Your task to perform on an android device: Open Google Chrome and click the shortcut for Amazon.com Image 0: 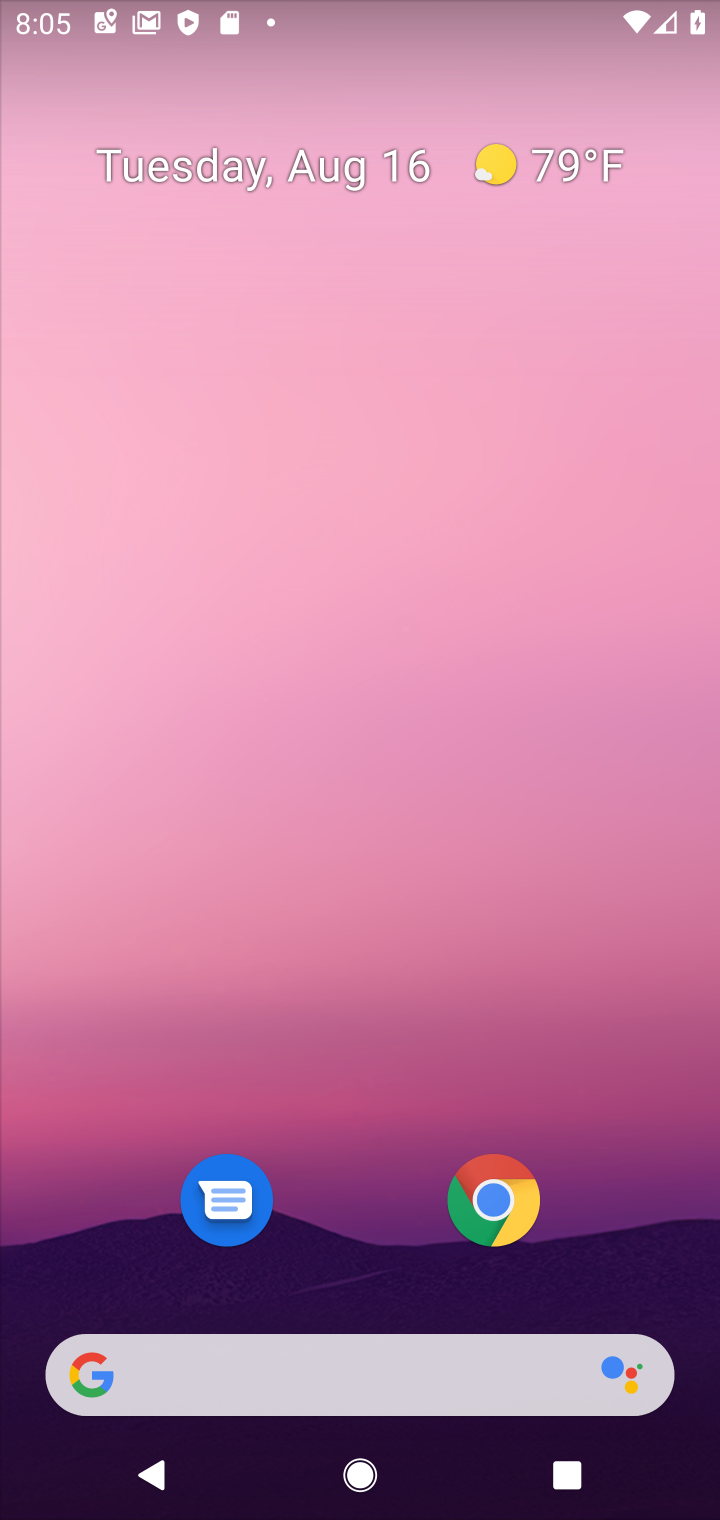
Step 0: click (494, 1199)
Your task to perform on an android device: Open Google Chrome and click the shortcut for Amazon.com Image 1: 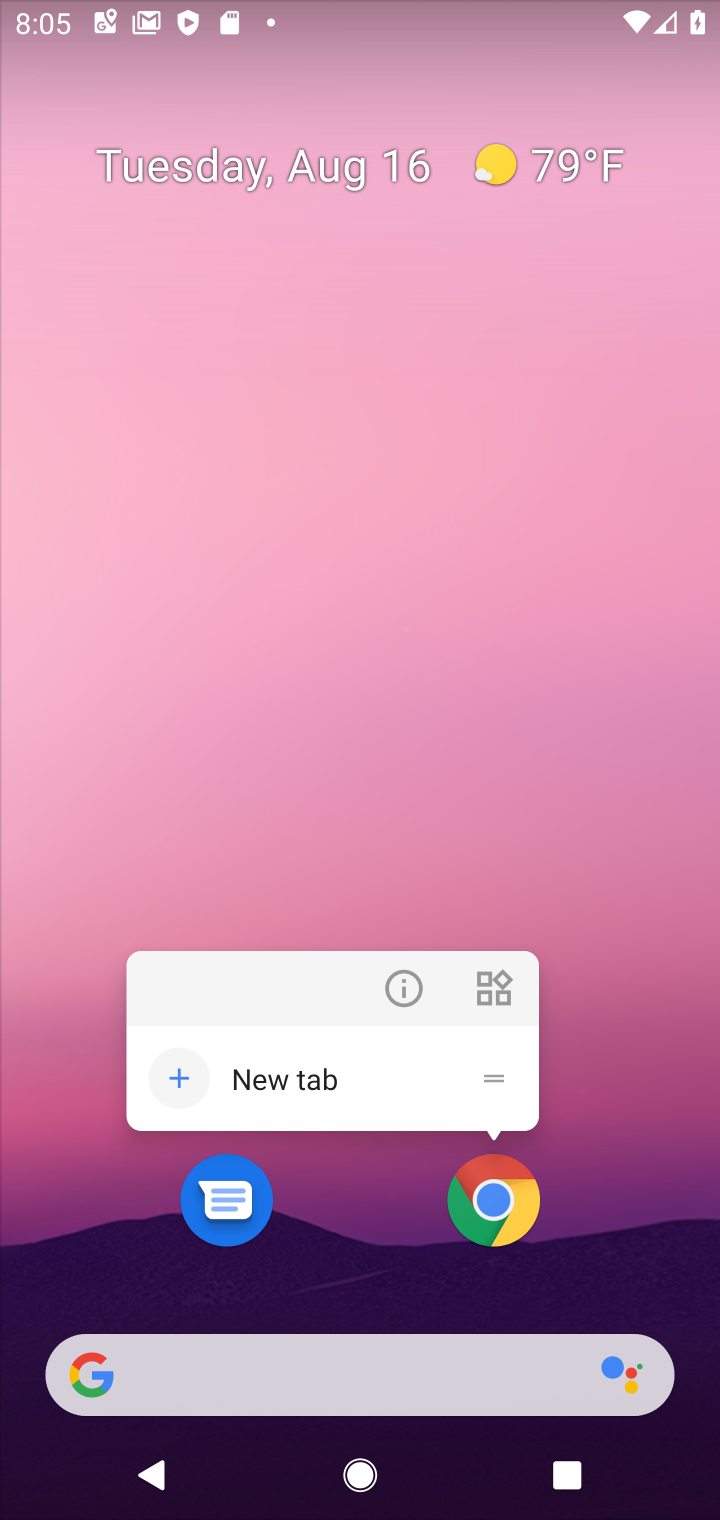
Step 1: click (494, 1199)
Your task to perform on an android device: Open Google Chrome and click the shortcut for Amazon.com Image 2: 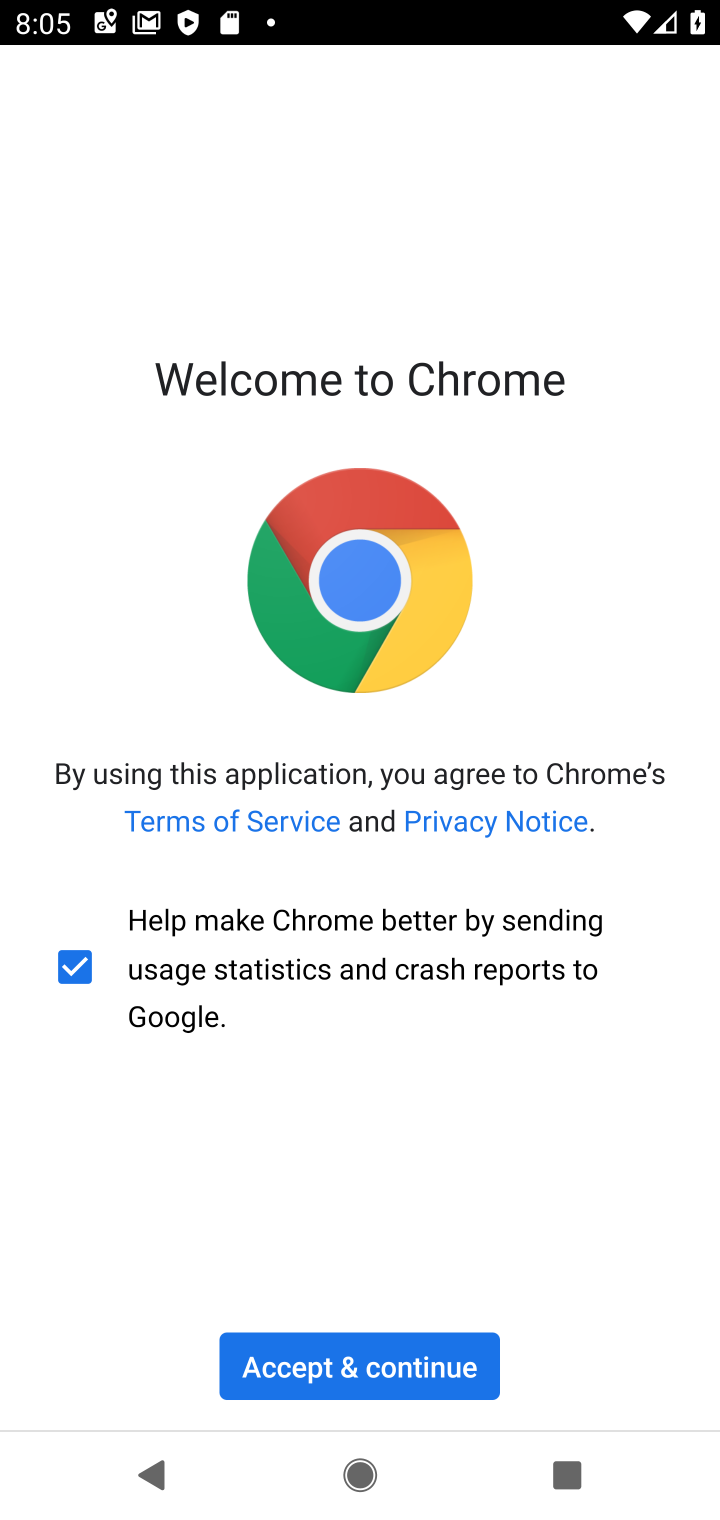
Step 2: click (395, 1368)
Your task to perform on an android device: Open Google Chrome and click the shortcut for Amazon.com Image 3: 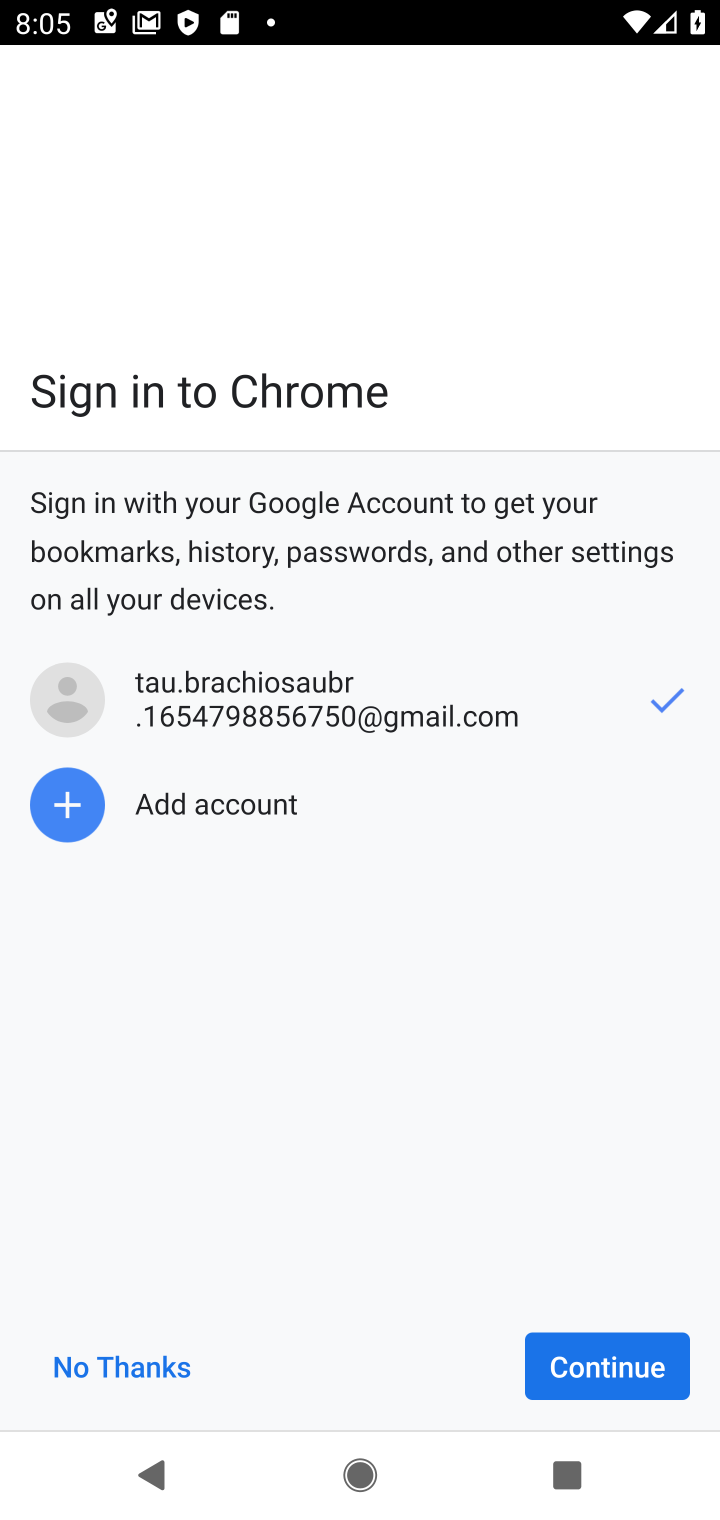
Step 3: click (598, 1367)
Your task to perform on an android device: Open Google Chrome and click the shortcut for Amazon.com Image 4: 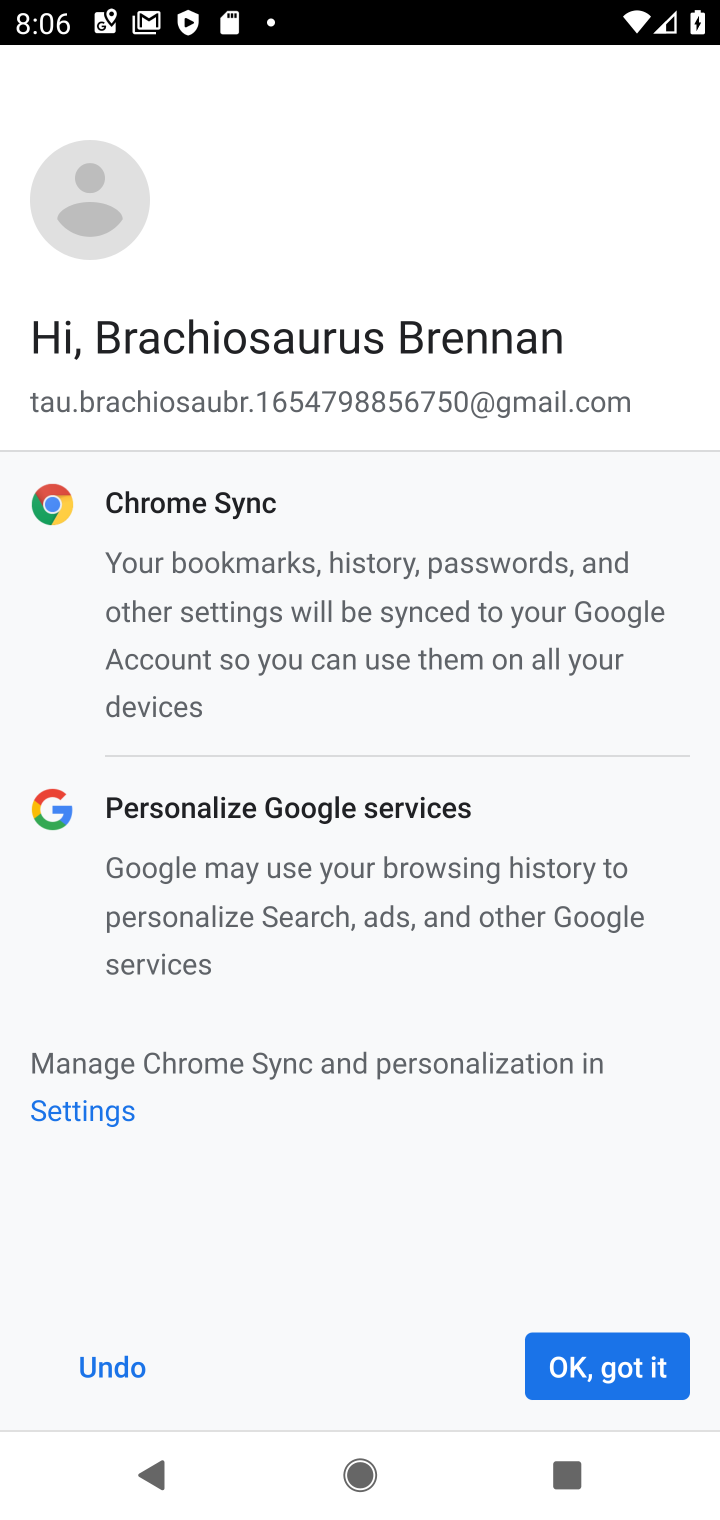
Step 4: click (598, 1367)
Your task to perform on an android device: Open Google Chrome and click the shortcut for Amazon.com Image 5: 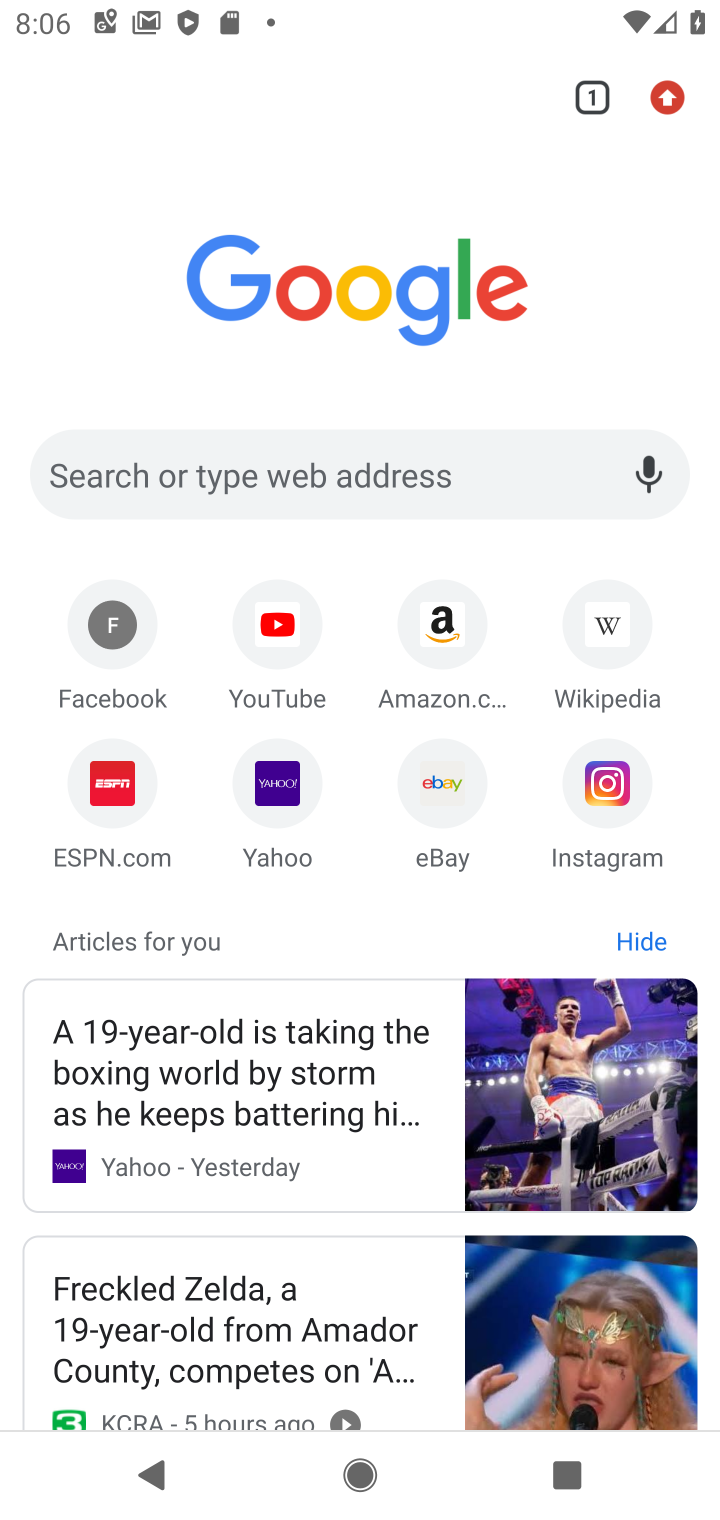
Step 5: click (438, 624)
Your task to perform on an android device: Open Google Chrome and click the shortcut for Amazon.com Image 6: 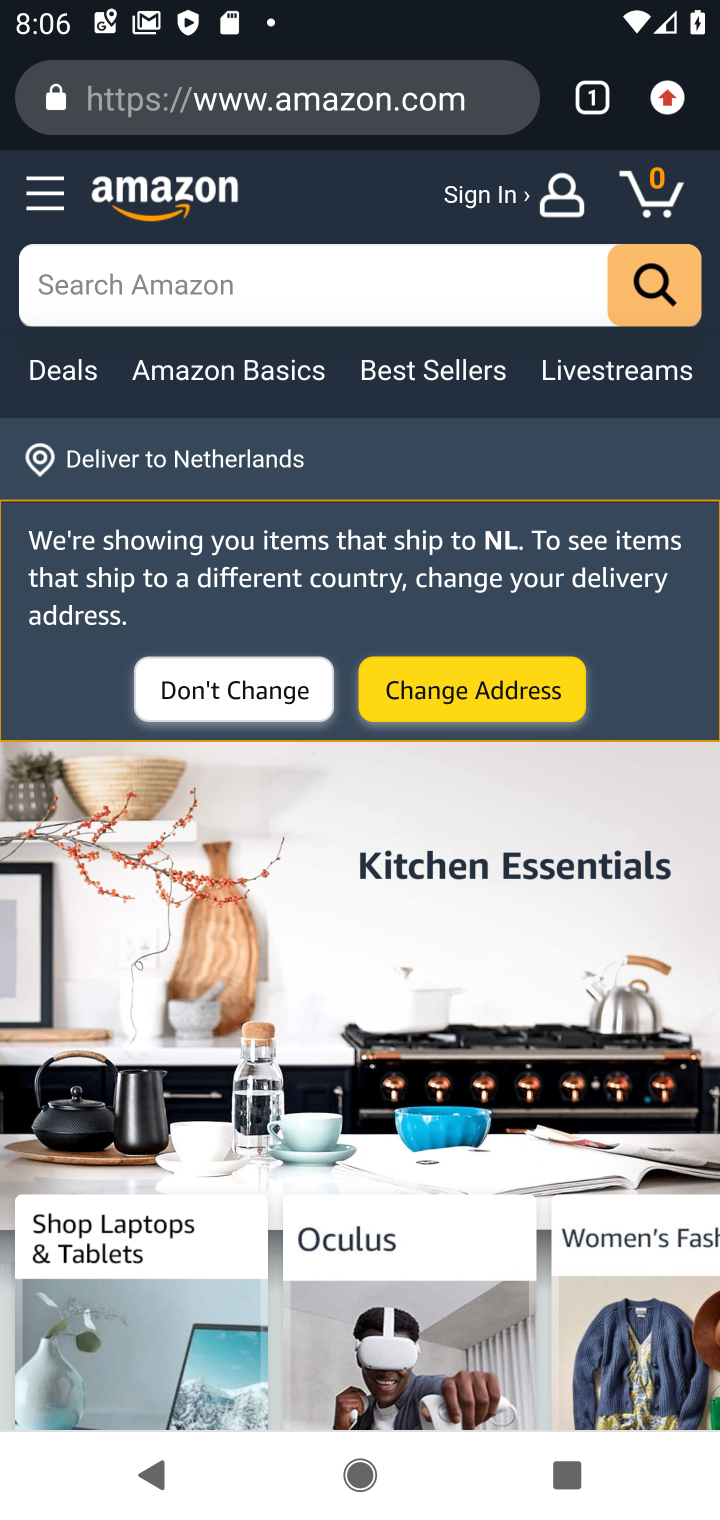
Step 6: task complete